Your task to perform on an android device: turn off priority inbox in the gmail app Image 0: 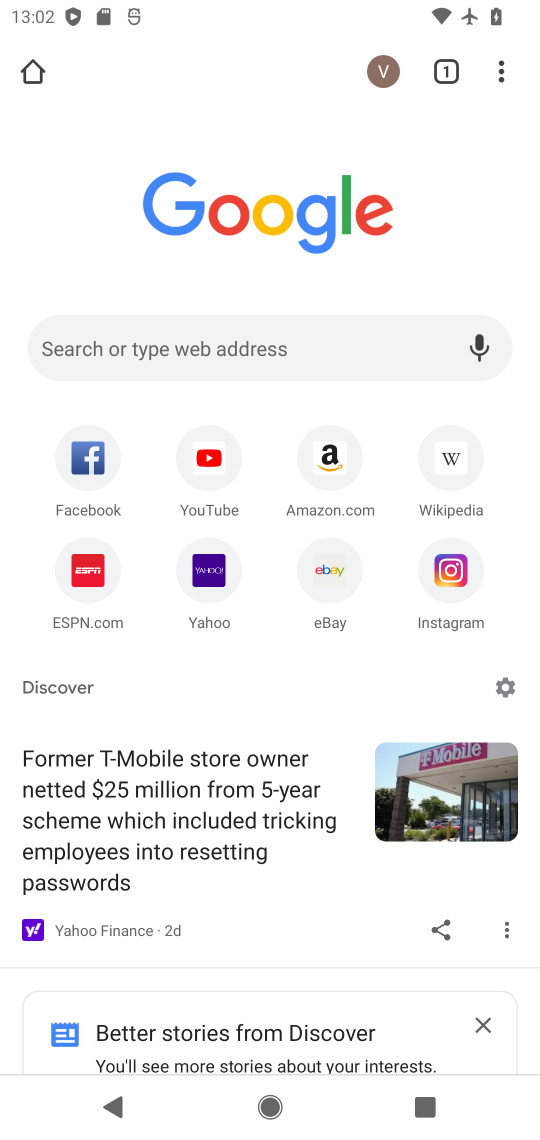
Step 0: press home button
Your task to perform on an android device: turn off priority inbox in the gmail app Image 1: 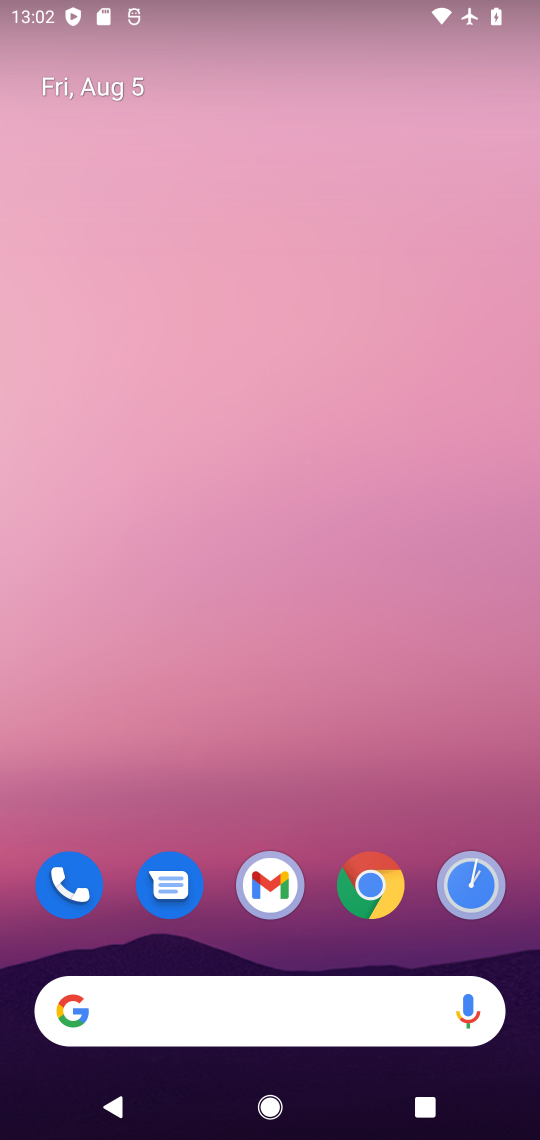
Step 1: click (269, 885)
Your task to perform on an android device: turn off priority inbox in the gmail app Image 2: 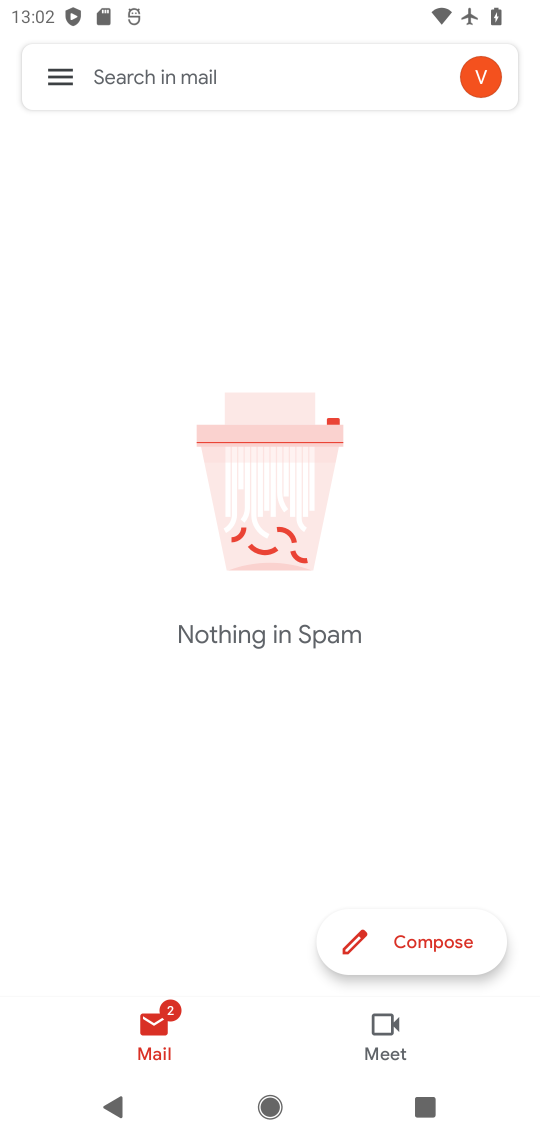
Step 2: click (53, 81)
Your task to perform on an android device: turn off priority inbox in the gmail app Image 3: 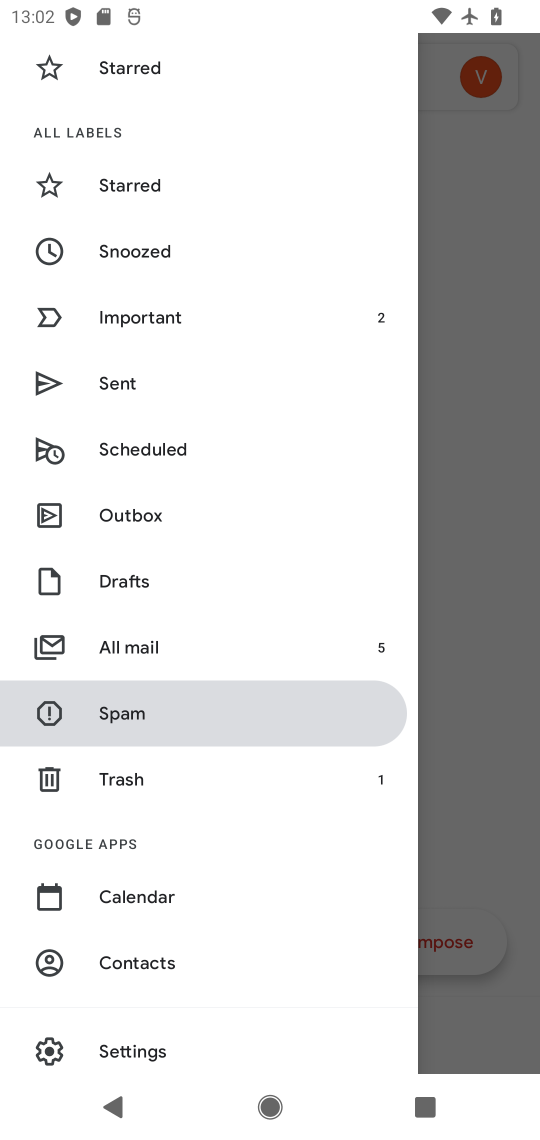
Step 3: click (140, 1058)
Your task to perform on an android device: turn off priority inbox in the gmail app Image 4: 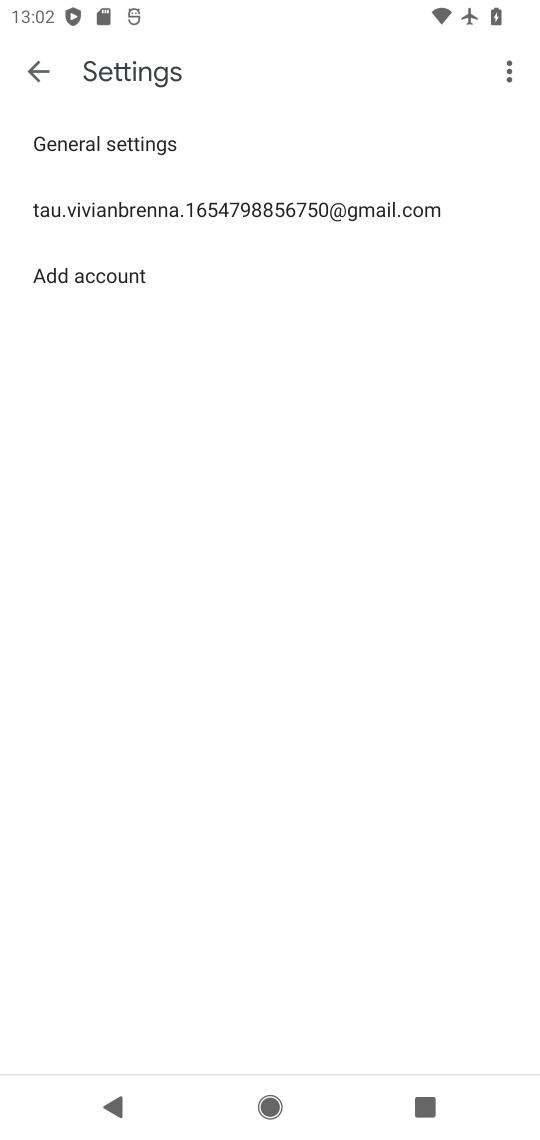
Step 4: click (178, 203)
Your task to perform on an android device: turn off priority inbox in the gmail app Image 5: 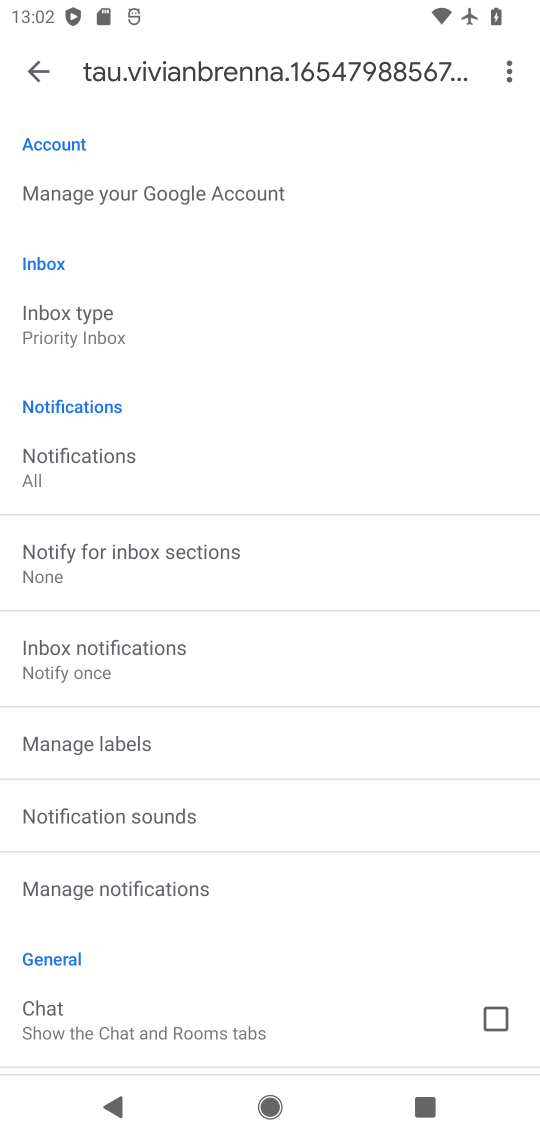
Step 5: click (77, 321)
Your task to perform on an android device: turn off priority inbox in the gmail app Image 6: 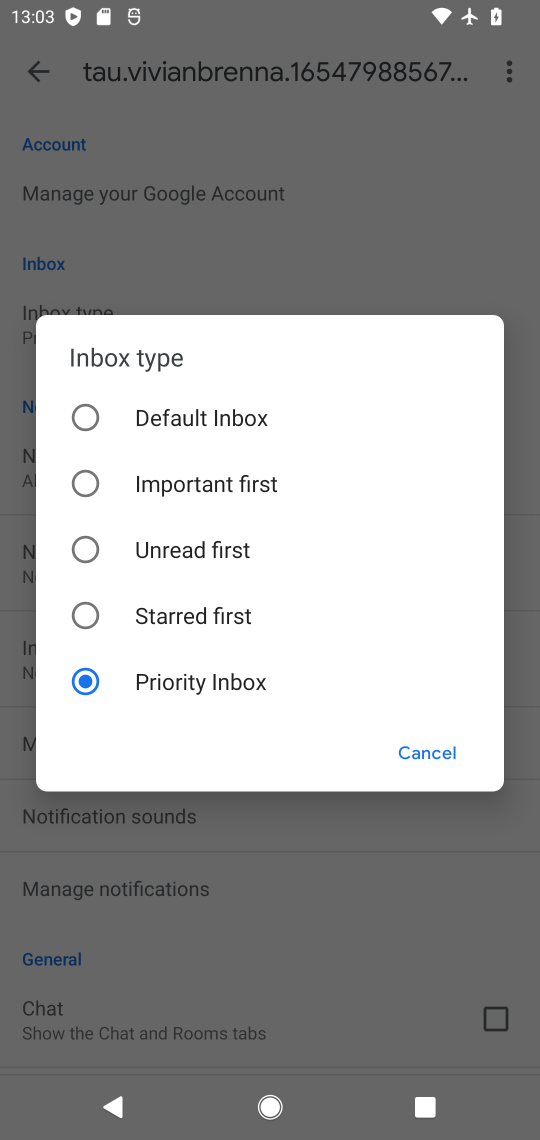
Step 6: click (89, 403)
Your task to perform on an android device: turn off priority inbox in the gmail app Image 7: 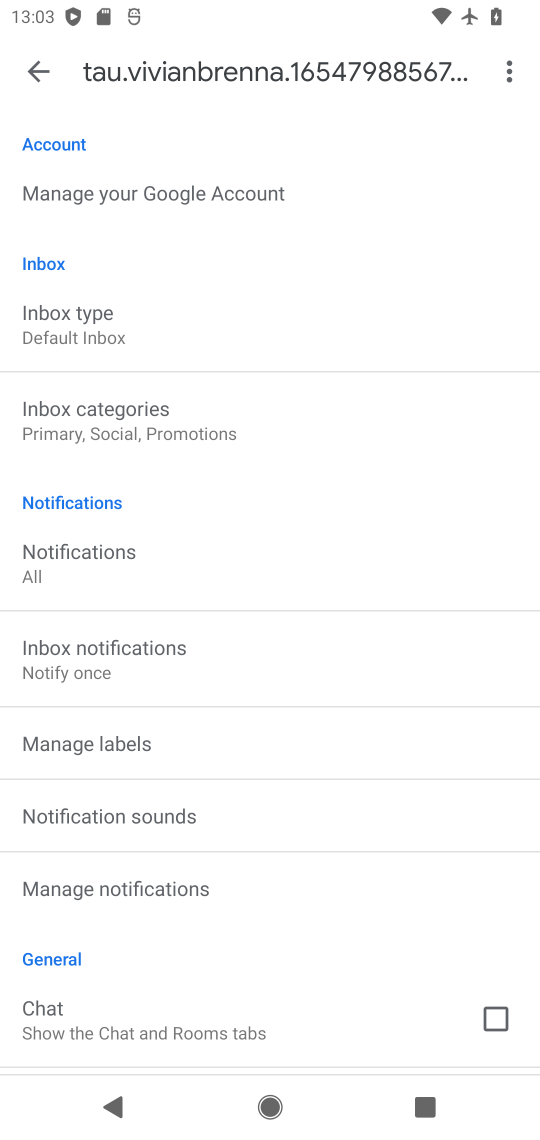
Step 7: drag from (204, 1001) to (153, 752)
Your task to perform on an android device: turn off priority inbox in the gmail app Image 8: 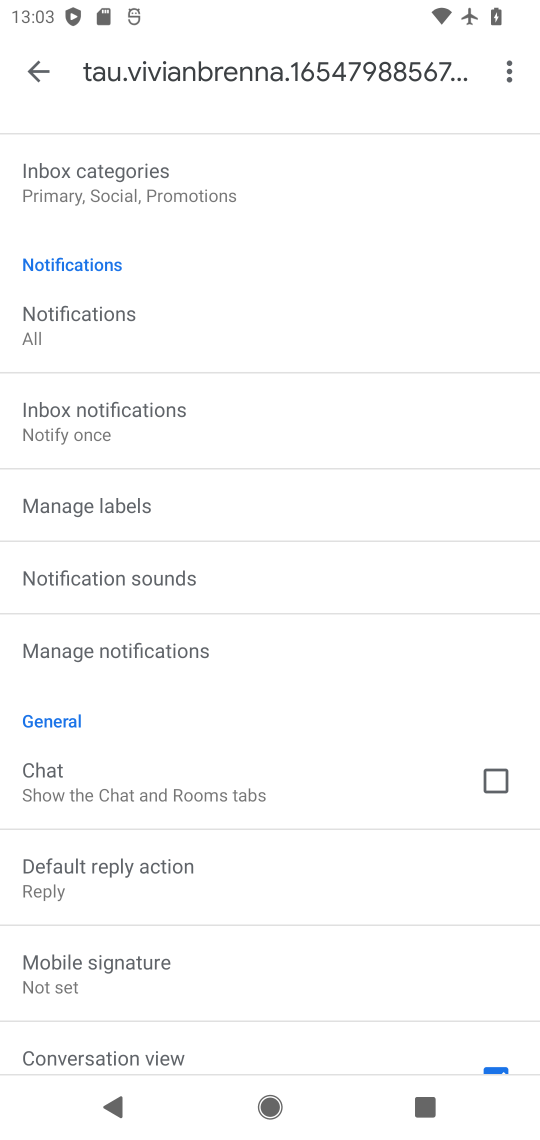
Step 8: drag from (265, 814) to (162, 115)
Your task to perform on an android device: turn off priority inbox in the gmail app Image 9: 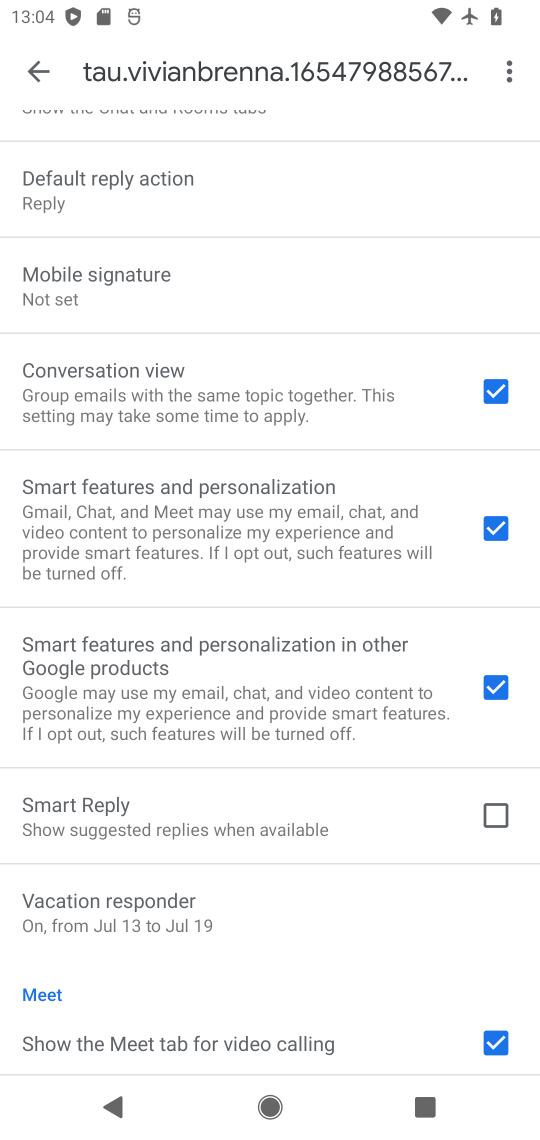
Step 9: drag from (188, 530) to (220, 746)
Your task to perform on an android device: turn off priority inbox in the gmail app Image 10: 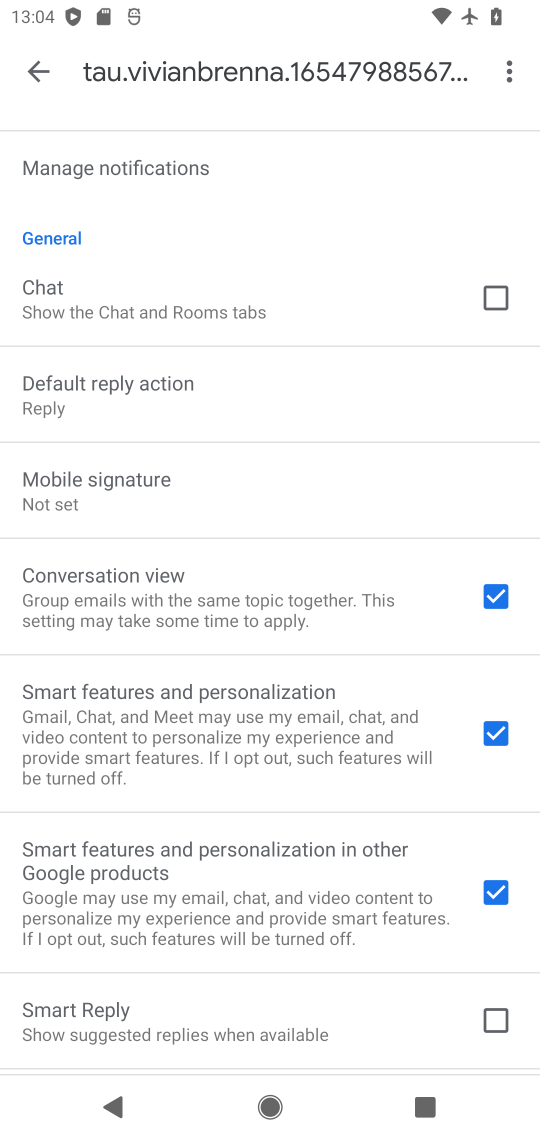
Step 10: drag from (270, 338) to (264, 759)
Your task to perform on an android device: turn off priority inbox in the gmail app Image 11: 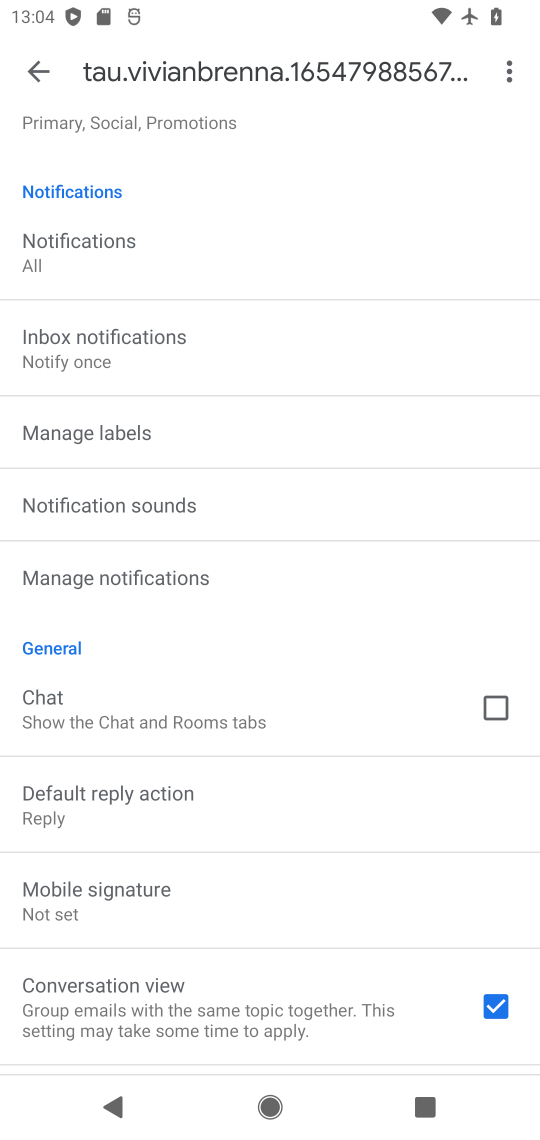
Step 11: drag from (169, 485) to (209, 697)
Your task to perform on an android device: turn off priority inbox in the gmail app Image 12: 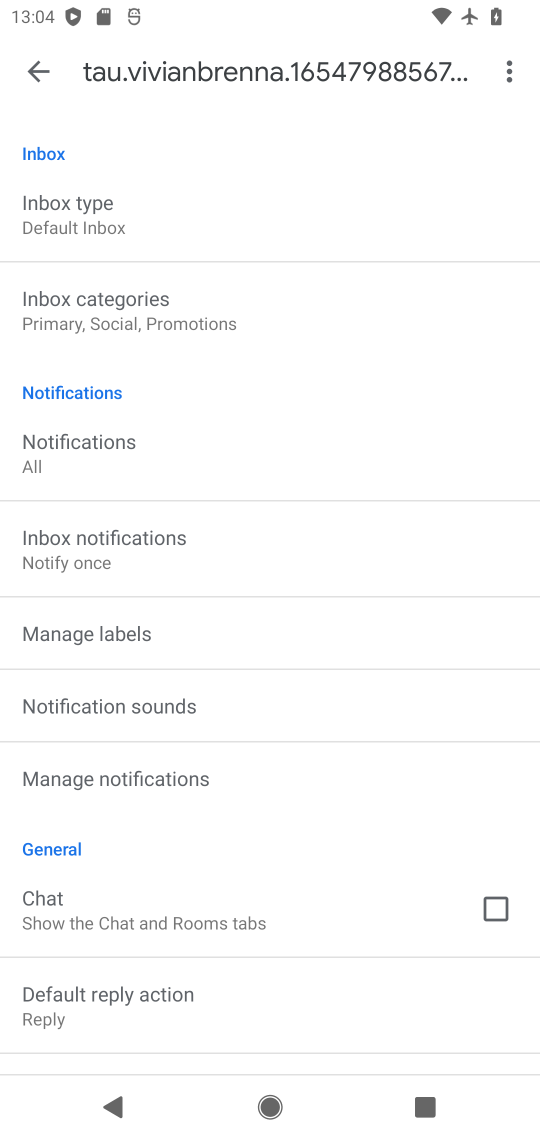
Step 12: click (72, 225)
Your task to perform on an android device: turn off priority inbox in the gmail app Image 13: 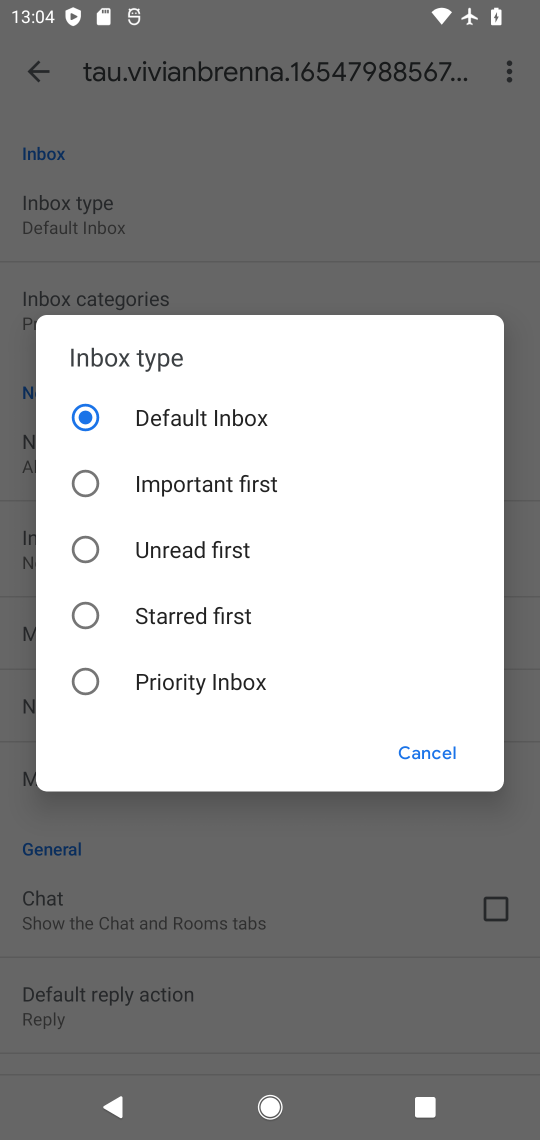
Step 13: task complete